Your task to perform on an android device: Open display settings Image 0: 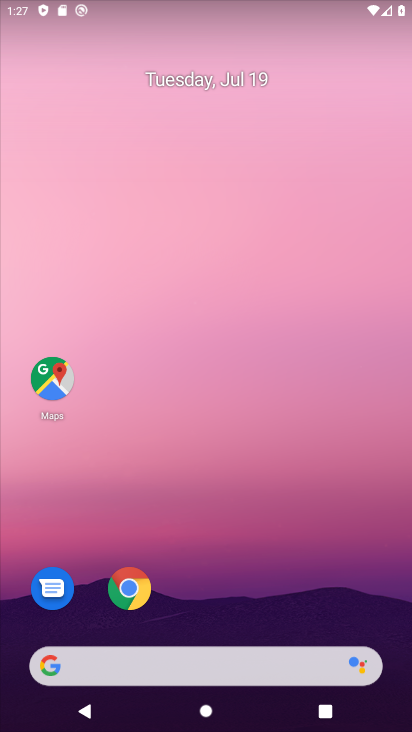
Step 0: drag from (201, 246) to (193, 33)
Your task to perform on an android device: Open display settings Image 1: 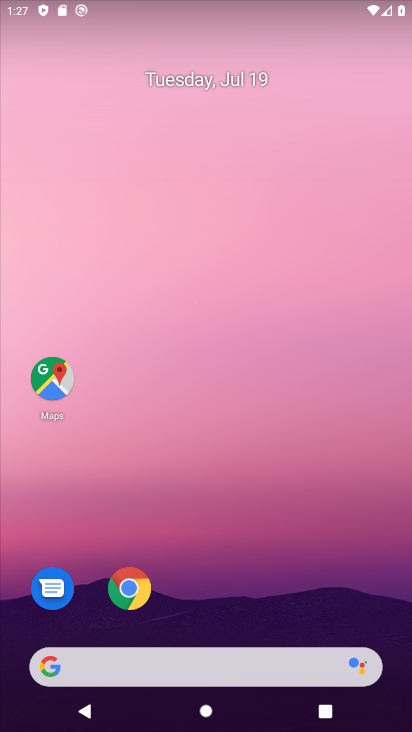
Step 1: drag from (183, 590) to (245, 64)
Your task to perform on an android device: Open display settings Image 2: 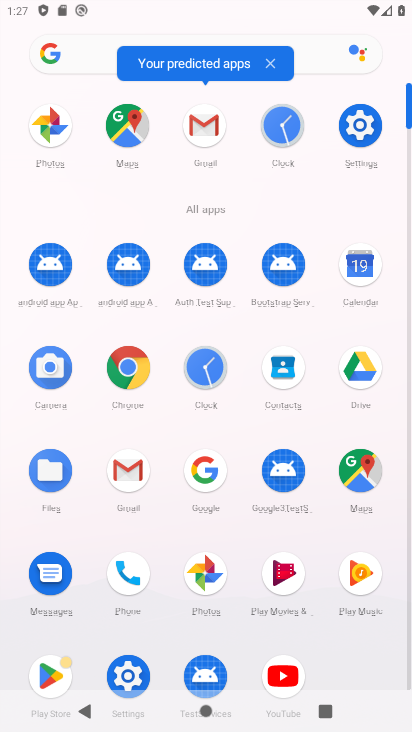
Step 2: click (372, 163)
Your task to perform on an android device: Open display settings Image 3: 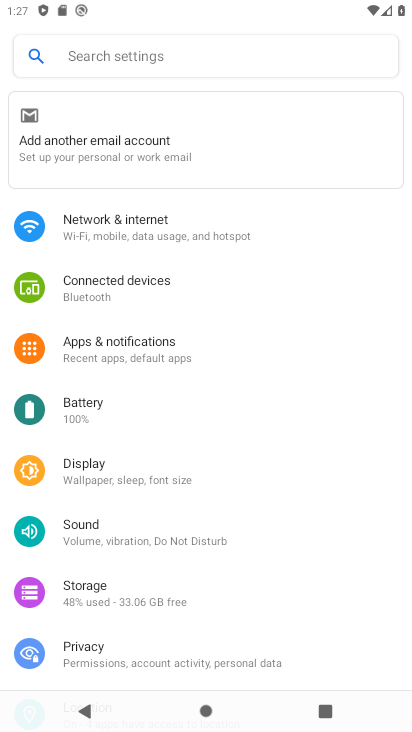
Step 3: click (123, 481)
Your task to perform on an android device: Open display settings Image 4: 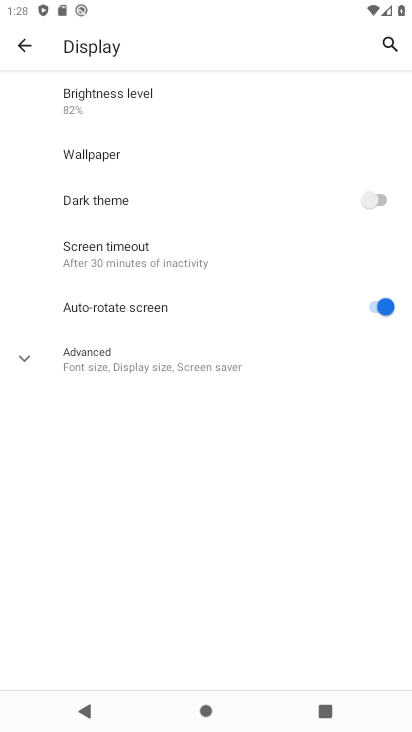
Step 4: task complete